Your task to perform on an android device: toggle notifications settings in the gmail app Image 0: 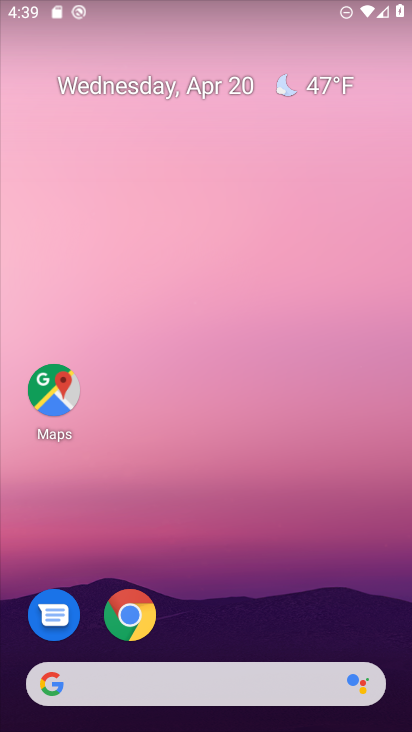
Step 0: drag from (242, 578) to (240, 10)
Your task to perform on an android device: toggle notifications settings in the gmail app Image 1: 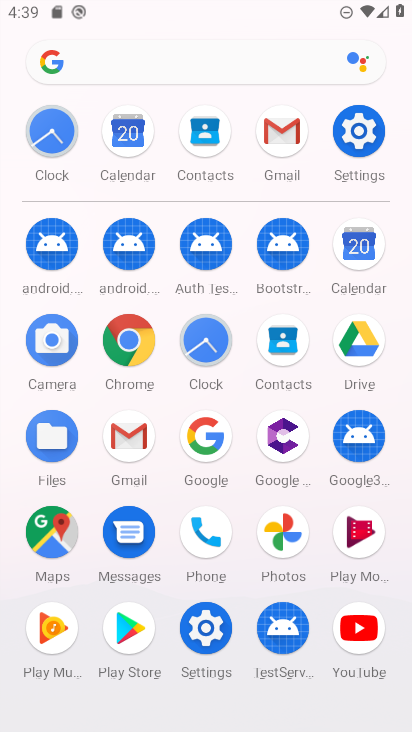
Step 1: click (143, 430)
Your task to perform on an android device: toggle notifications settings in the gmail app Image 2: 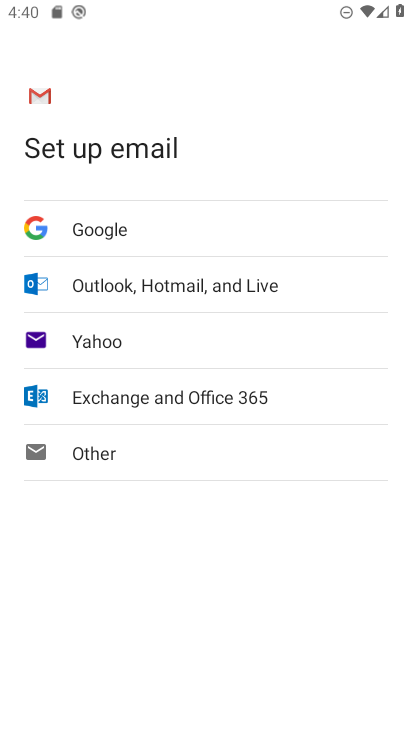
Step 2: click (124, 218)
Your task to perform on an android device: toggle notifications settings in the gmail app Image 3: 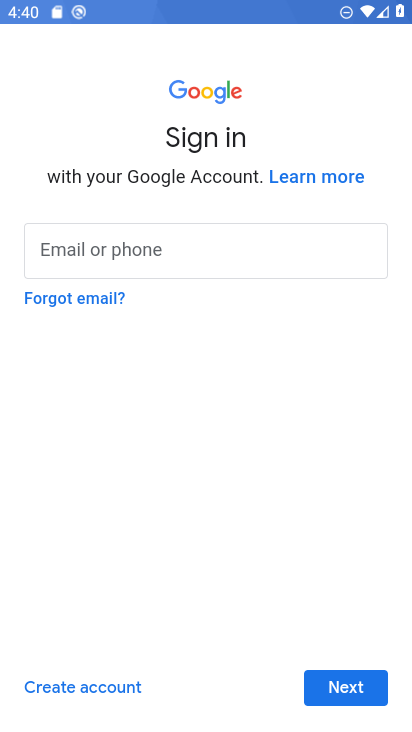
Step 3: task complete